Your task to perform on an android device: all mails in gmail Image 0: 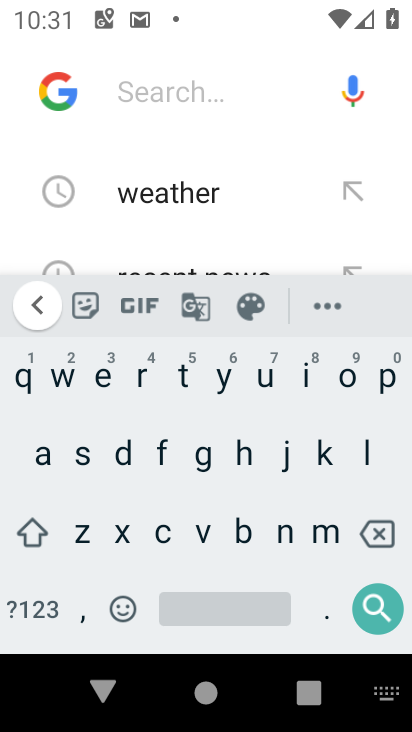
Step 0: press home button
Your task to perform on an android device: all mails in gmail Image 1: 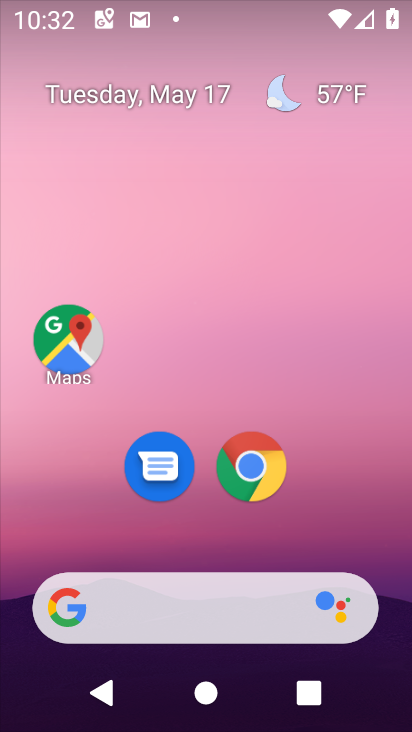
Step 1: drag from (249, 644) to (191, 211)
Your task to perform on an android device: all mails in gmail Image 2: 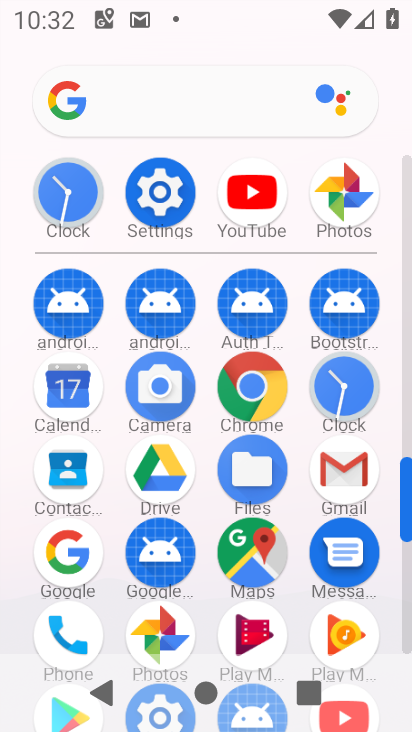
Step 2: click (351, 469)
Your task to perform on an android device: all mails in gmail Image 3: 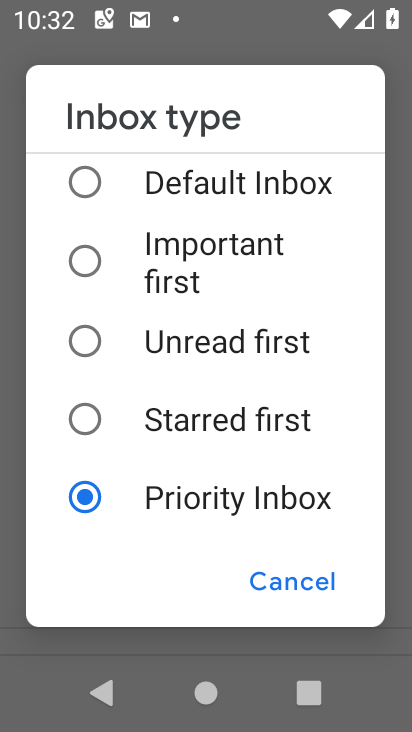
Step 3: click (308, 578)
Your task to perform on an android device: all mails in gmail Image 4: 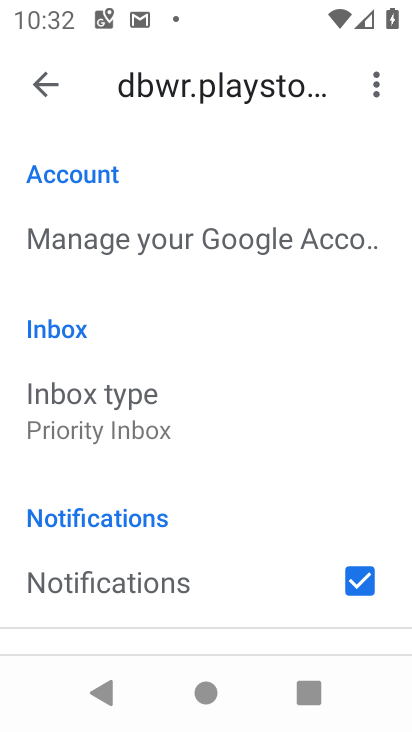
Step 4: click (53, 92)
Your task to perform on an android device: all mails in gmail Image 5: 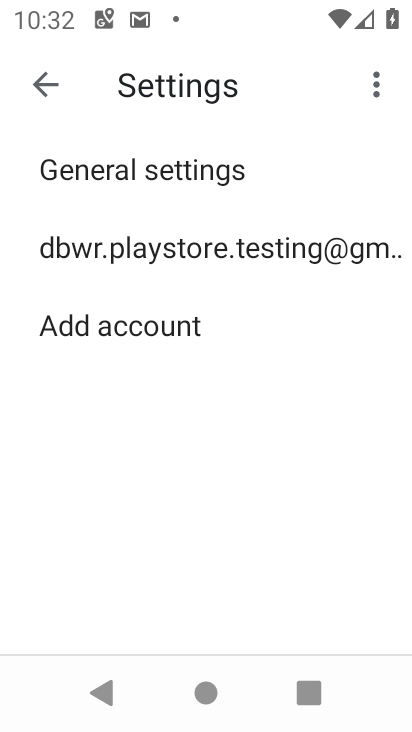
Step 5: click (54, 92)
Your task to perform on an android device: all mails in gmail Image 6: 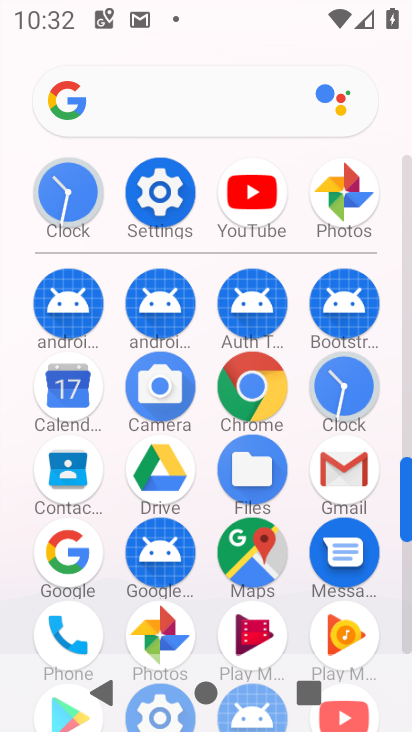
Step 6: click (340, 479)
Your task to perform on an android device: all mails in gmail Image 7: 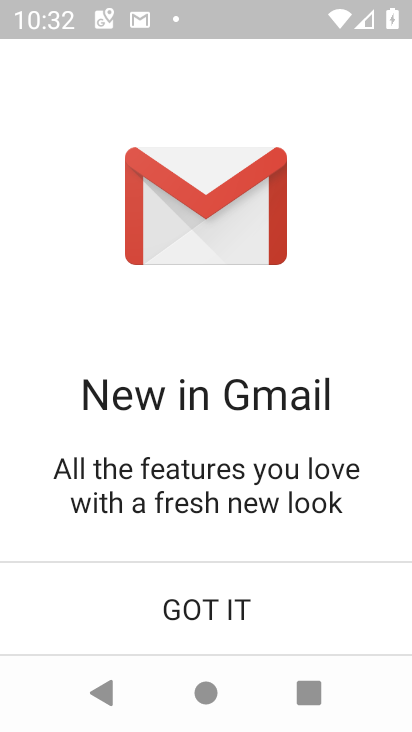
Step 7: click (226, 604)
Your task to perform on an android device: all mails in gmail Image 8: 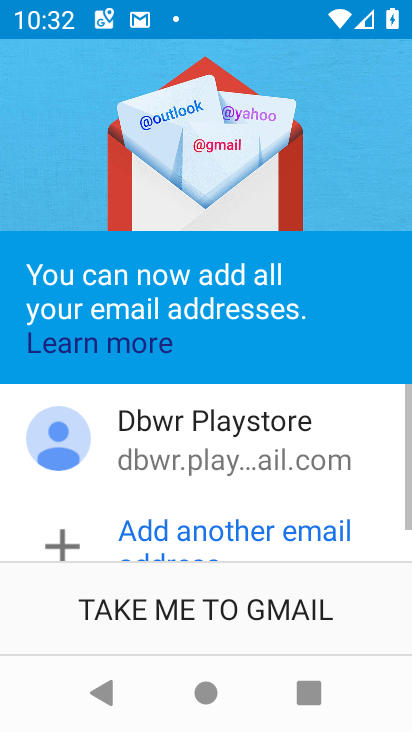
Step 8: click (204, 612)
Your task to perform on an android device: all mails in gmail Image 9: 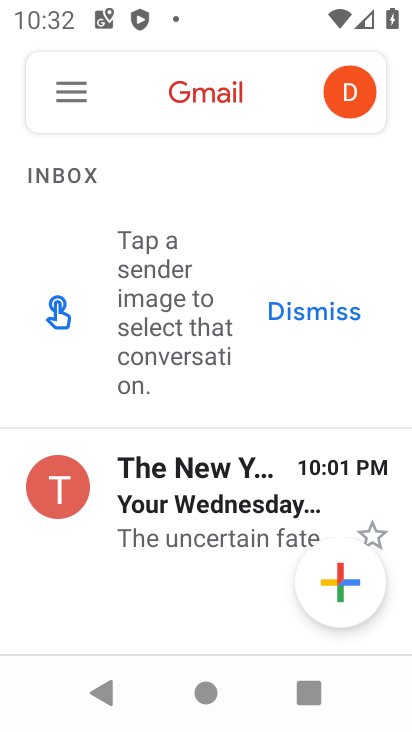
Step 9: click (73, 103)
Your task to perform on an android device: all mails in gmail Image 10: 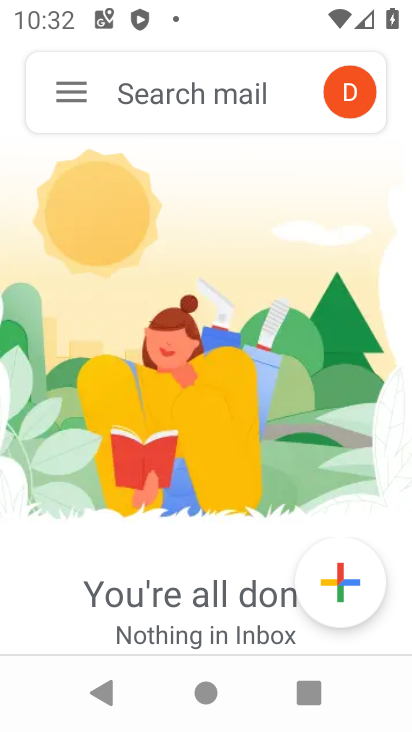
Step 10: click (71, 106)
Your task to perform on an android device: all mails in gmail Image 11: 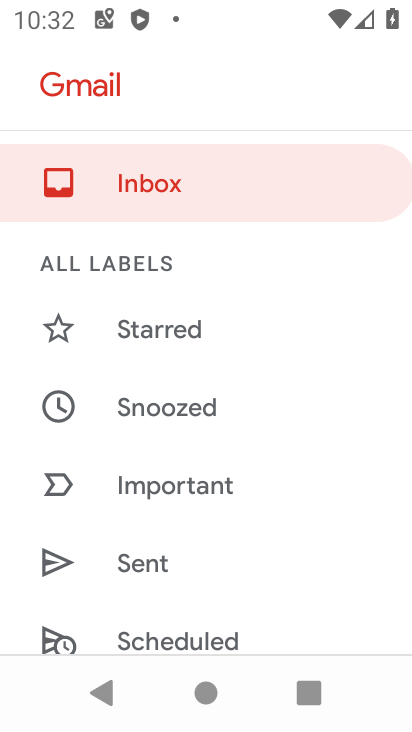
Step 11: drag from (204, 517) to (184, 328)
Your task to perform on an android device: all mails in gmail Image 12: 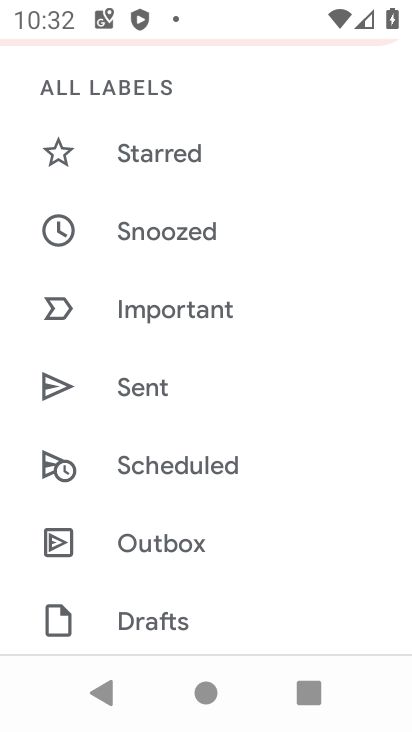
Step 12: drag from (204, 566) to (210, 294)
Your task to perform on an android device: all mails in gmail Image 13: 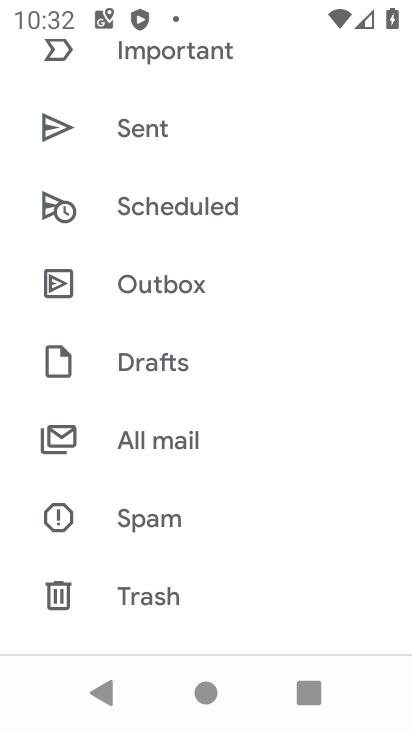
Step 13: click (157, 530)
Your task to perform on an android device: all mails in gmail Image 14: 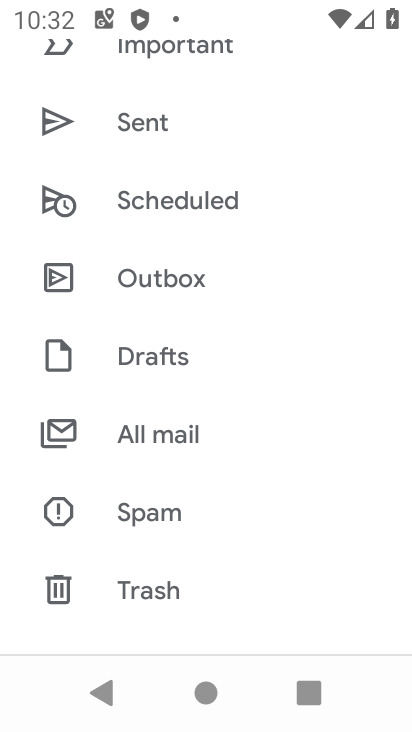
Step 14: click (164, 440)
Your task to perform on an android device: all mails in gmail Image 15: 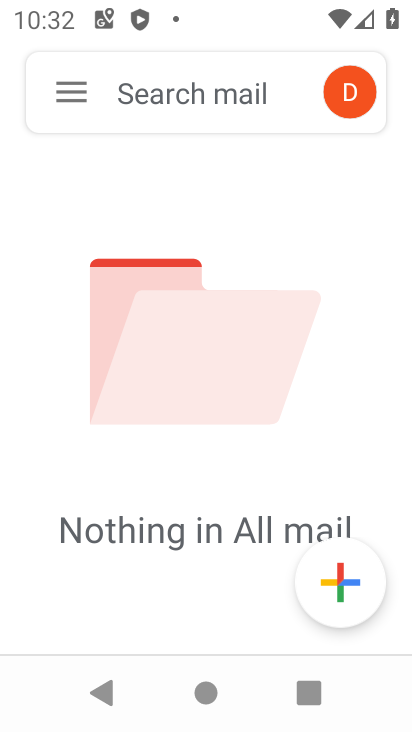
Step 15: task complete